Your task to perform on an android device: Add "logitech g502" to the cart on newegg Image 0: 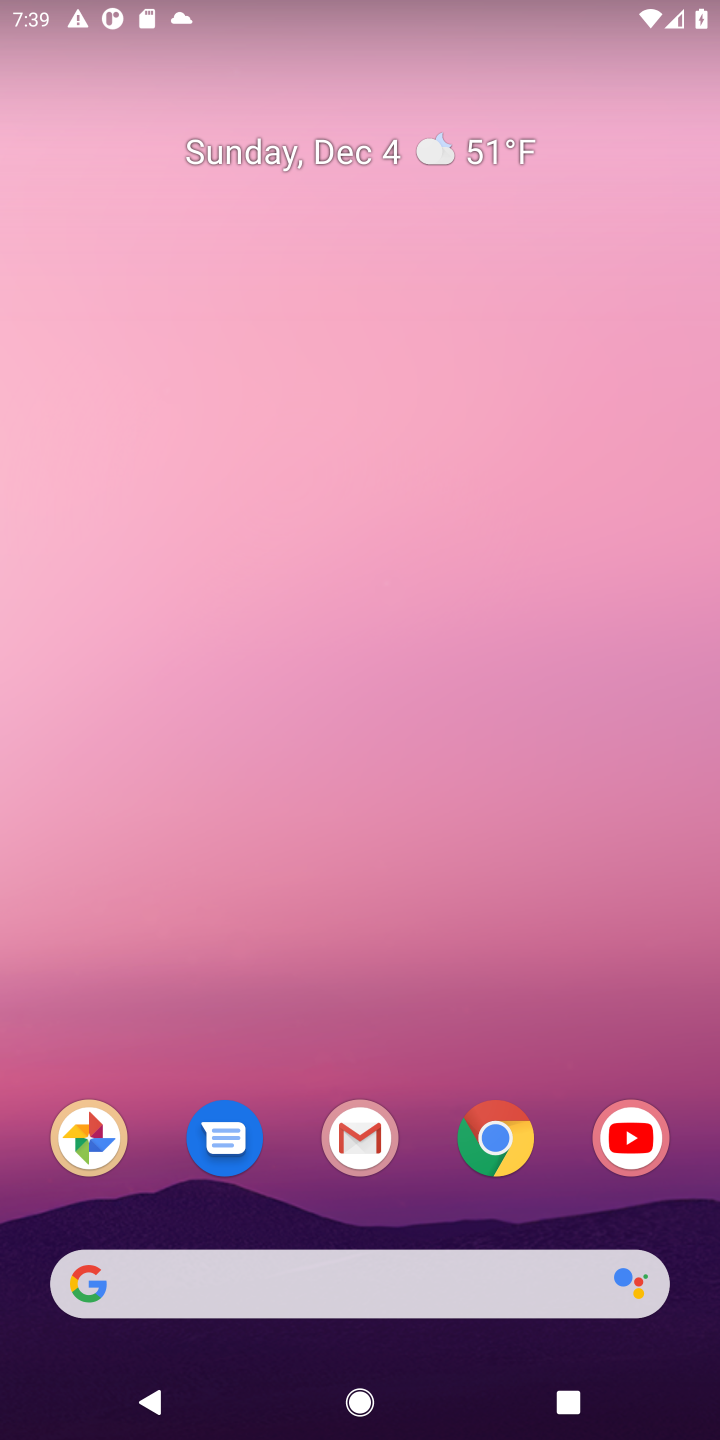
Step 0: click (487, 1139)
Your task to perform on an android device: Add "logitech g502" to the cart on newegg Image 1: 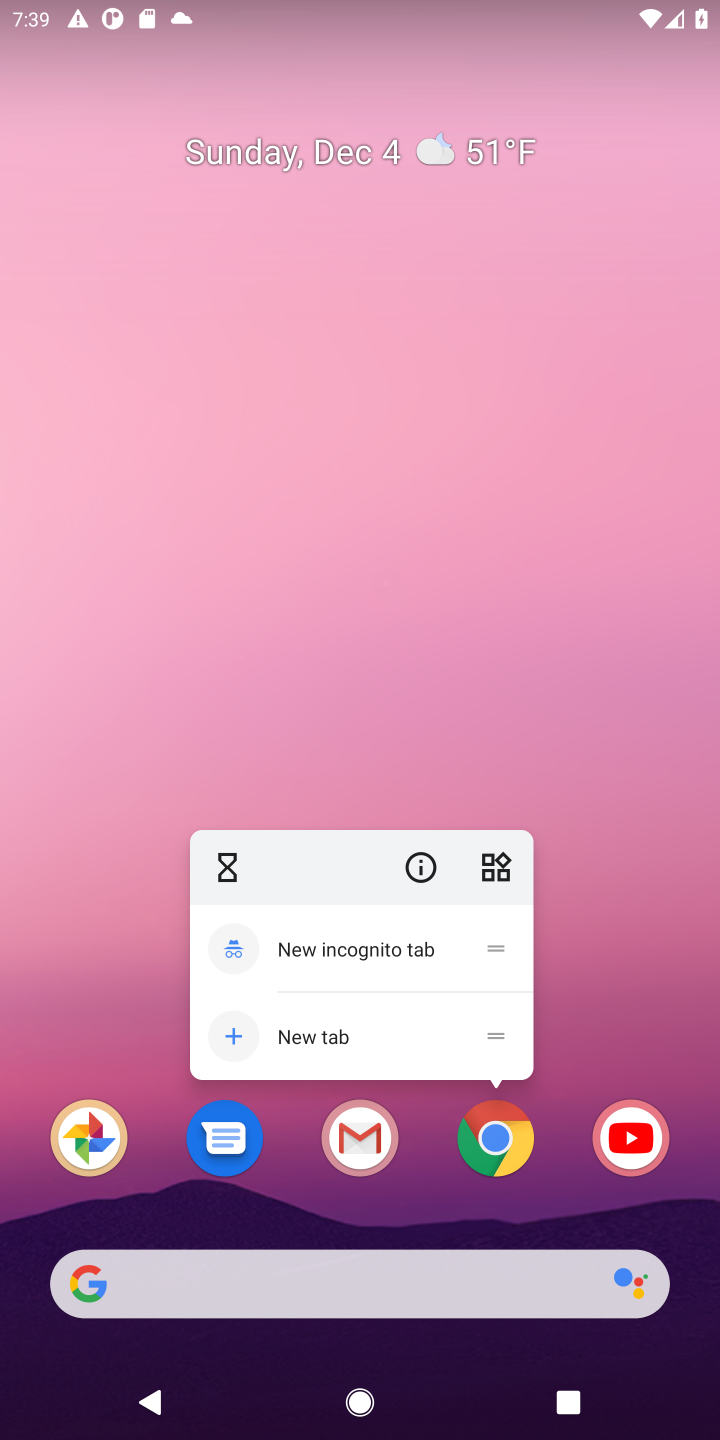
Step 1: click (487, 1139)
Your task to perform on an android device: Add "logitech g502" to the cart on newegg Image 2: 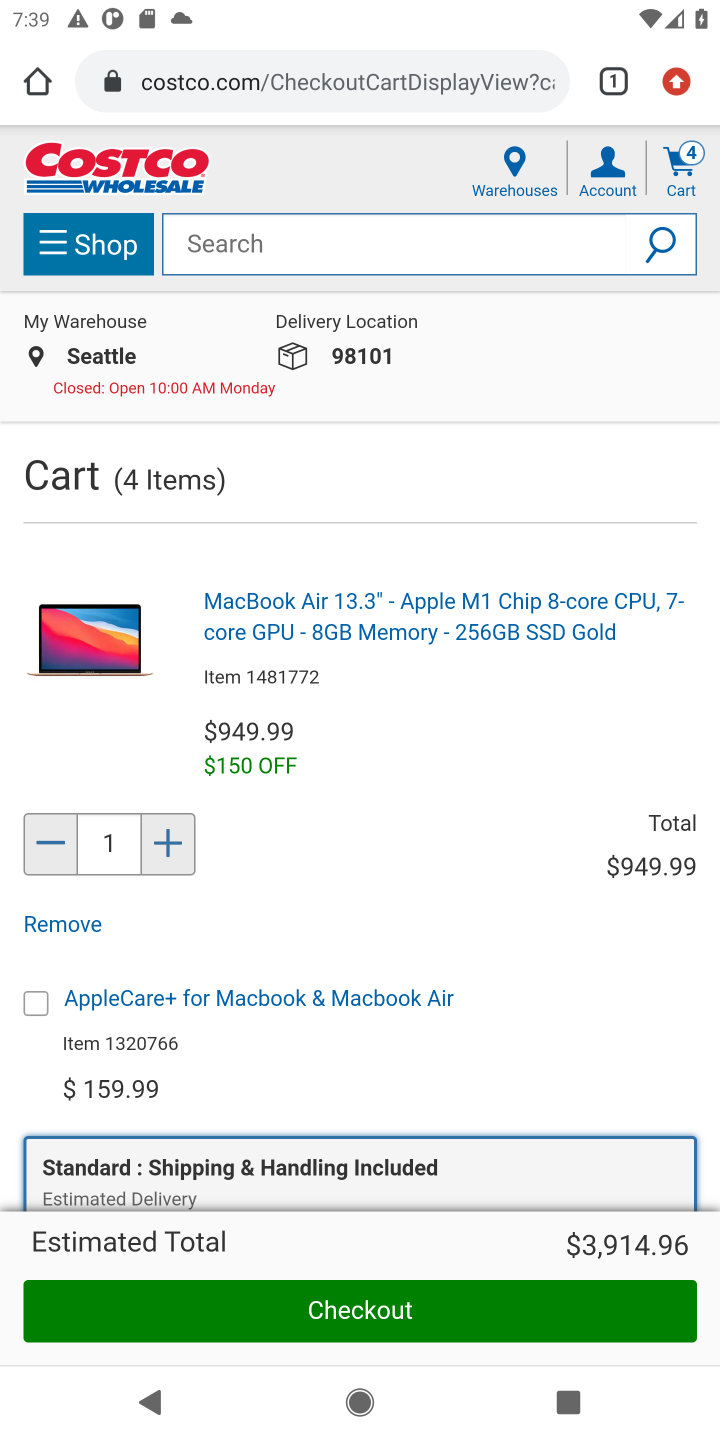
Step 2: click (475, 82)
Your task to perform on an android device: Add "logitech g502" to the cart on newegg Image 3: 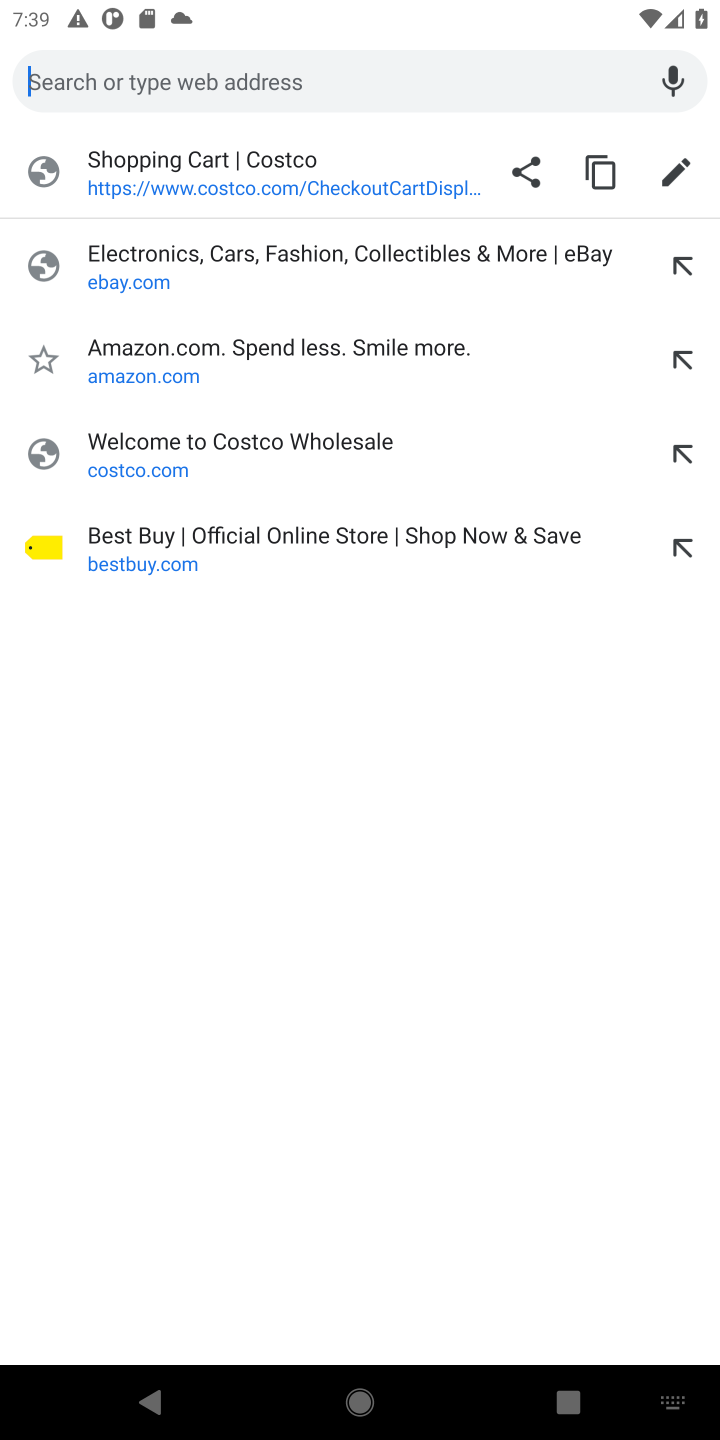
Step 3: type "newegg"
Your task to perform on an android device: Add "logitech g502" to the cart on newegg Image 4: 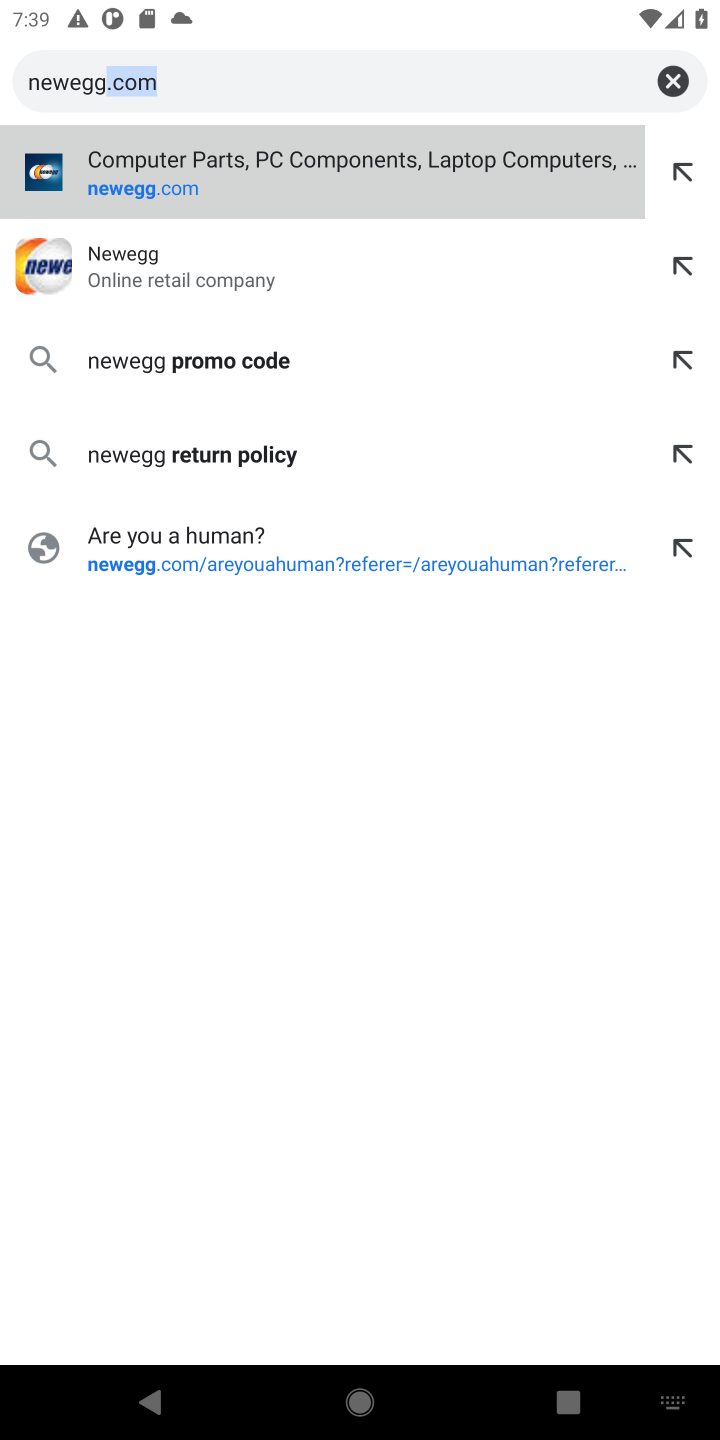
Step 4: press enter
Your task to perform on an android device: Add "logitech g502" to the cart on newegg Image 5: 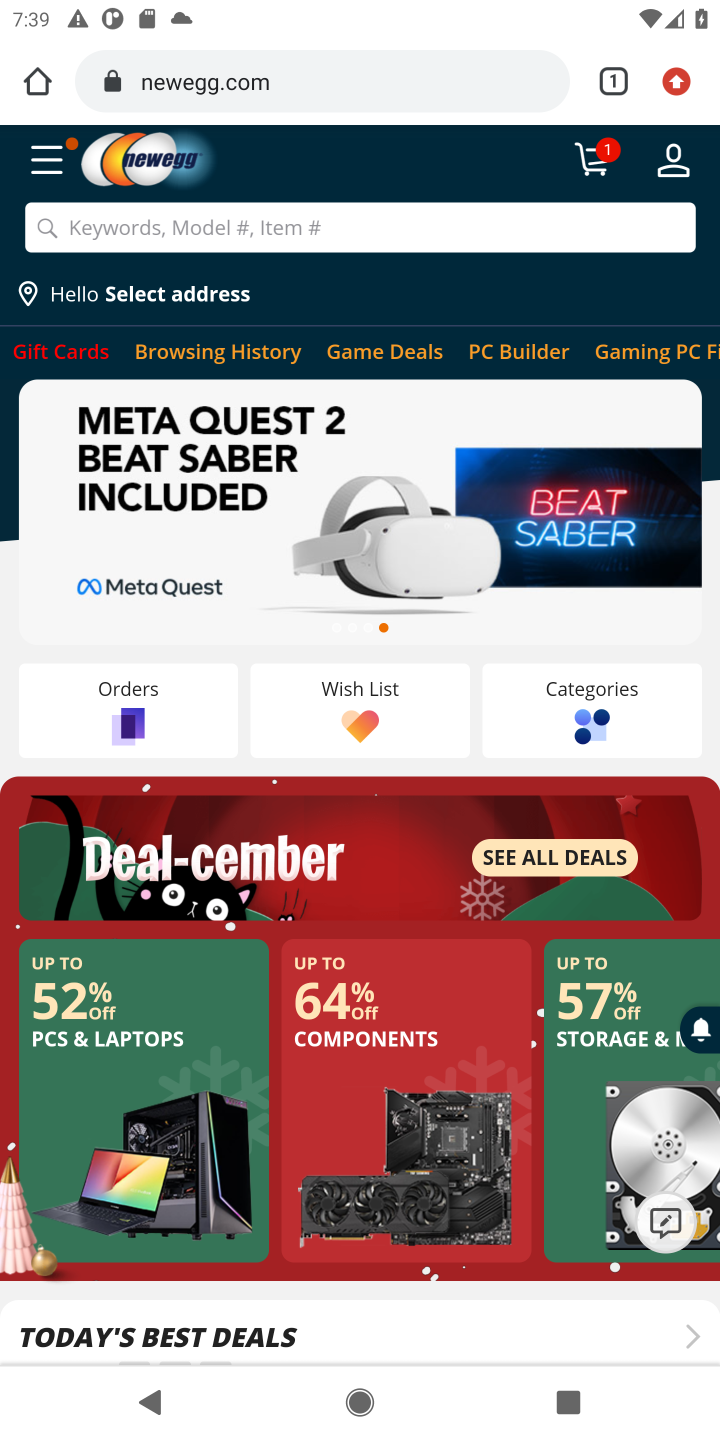
Step 5: click (350, 217)
Your task to perform on an android device: Add "logitech g502" to the cart on newegg Image 6: 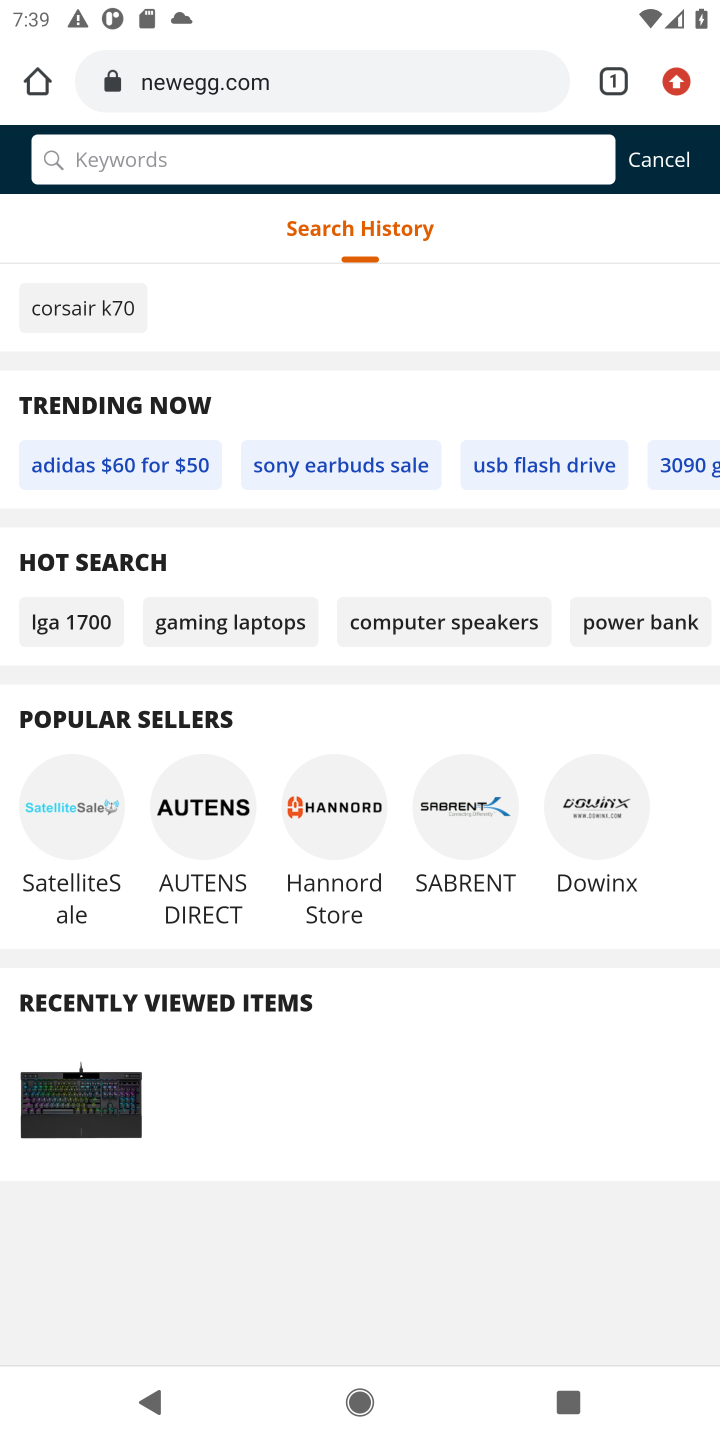
Step 6: type "logitech g502"
Your task to perform on an android device: Add "logitech g502" to the cart on newegg Image 7: 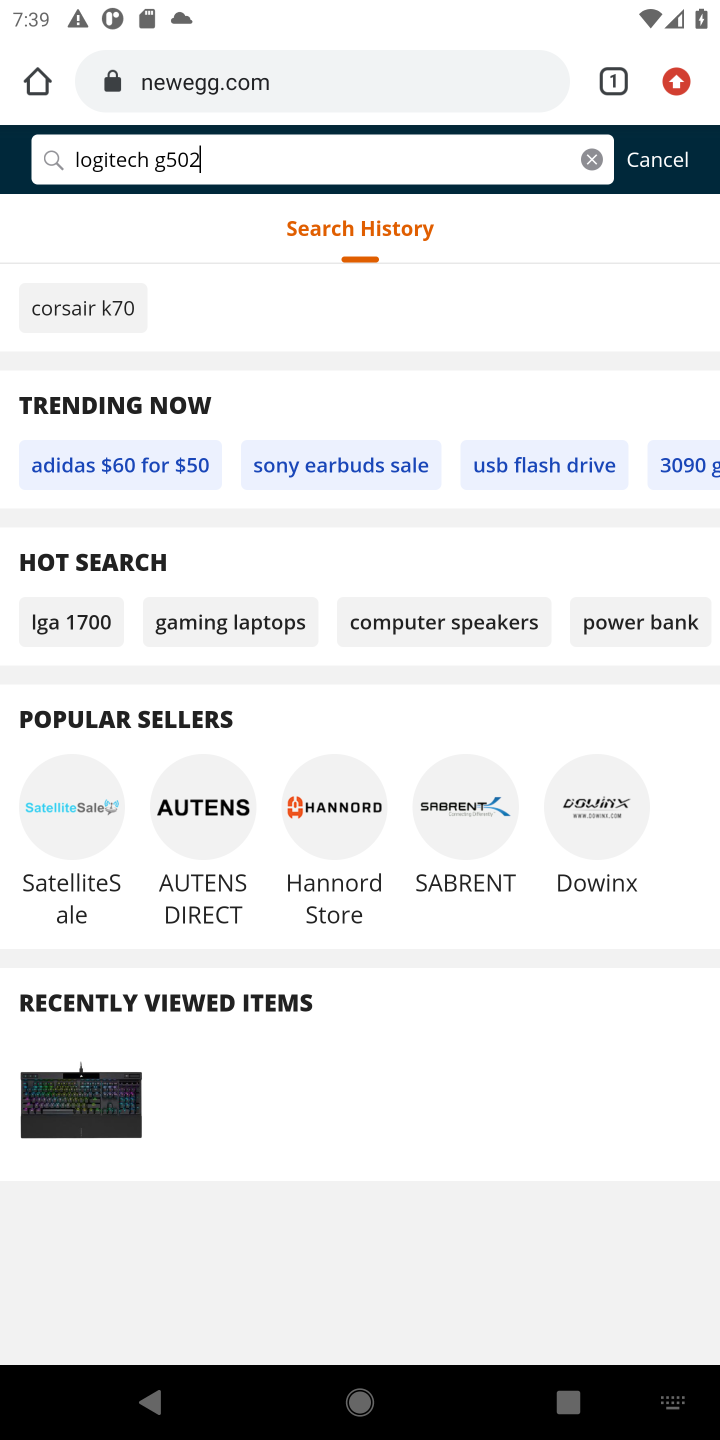
Step 7: press enter
Your task to perform on an android device: Add "logitech g502" to the cart on newegg Image 8: 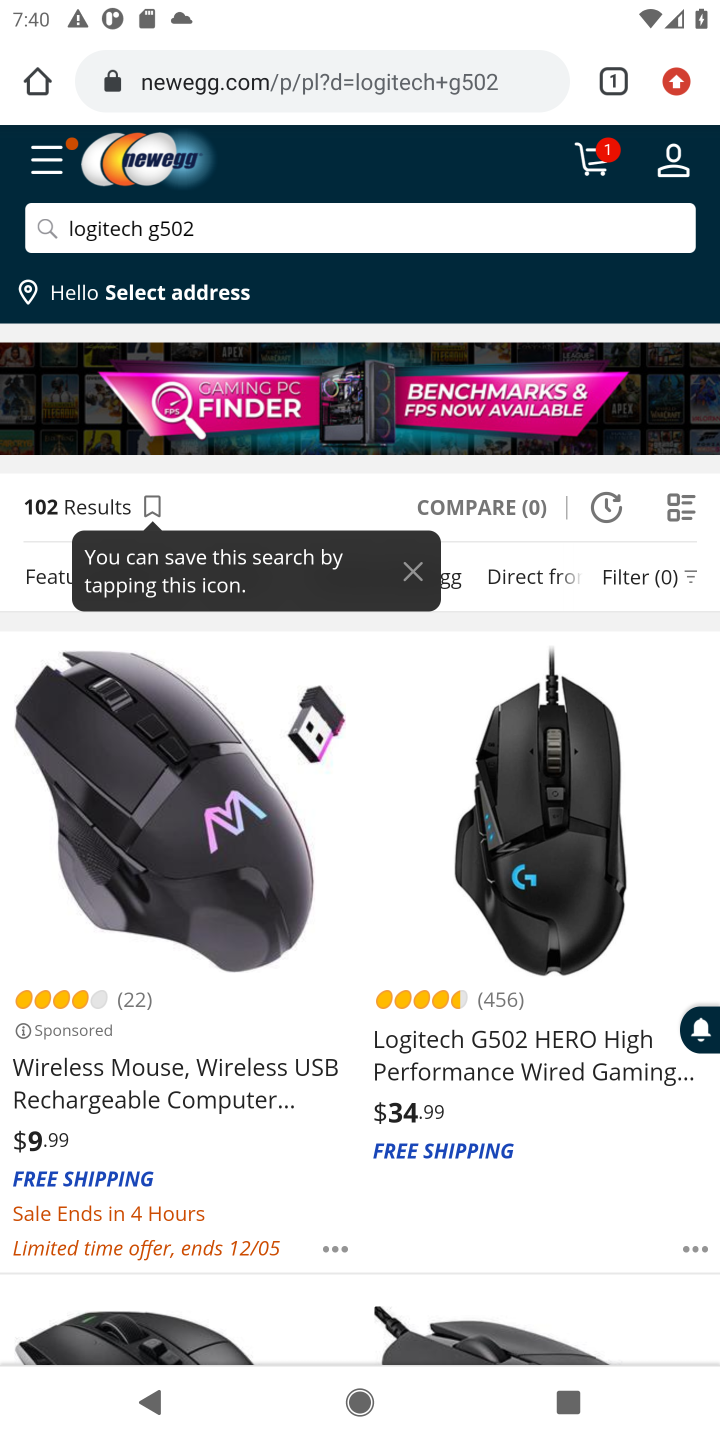
Step 8: click (575, 783)
Your task to perform on an android device: Add "logitech g502" to the cart on newegg Image 9: 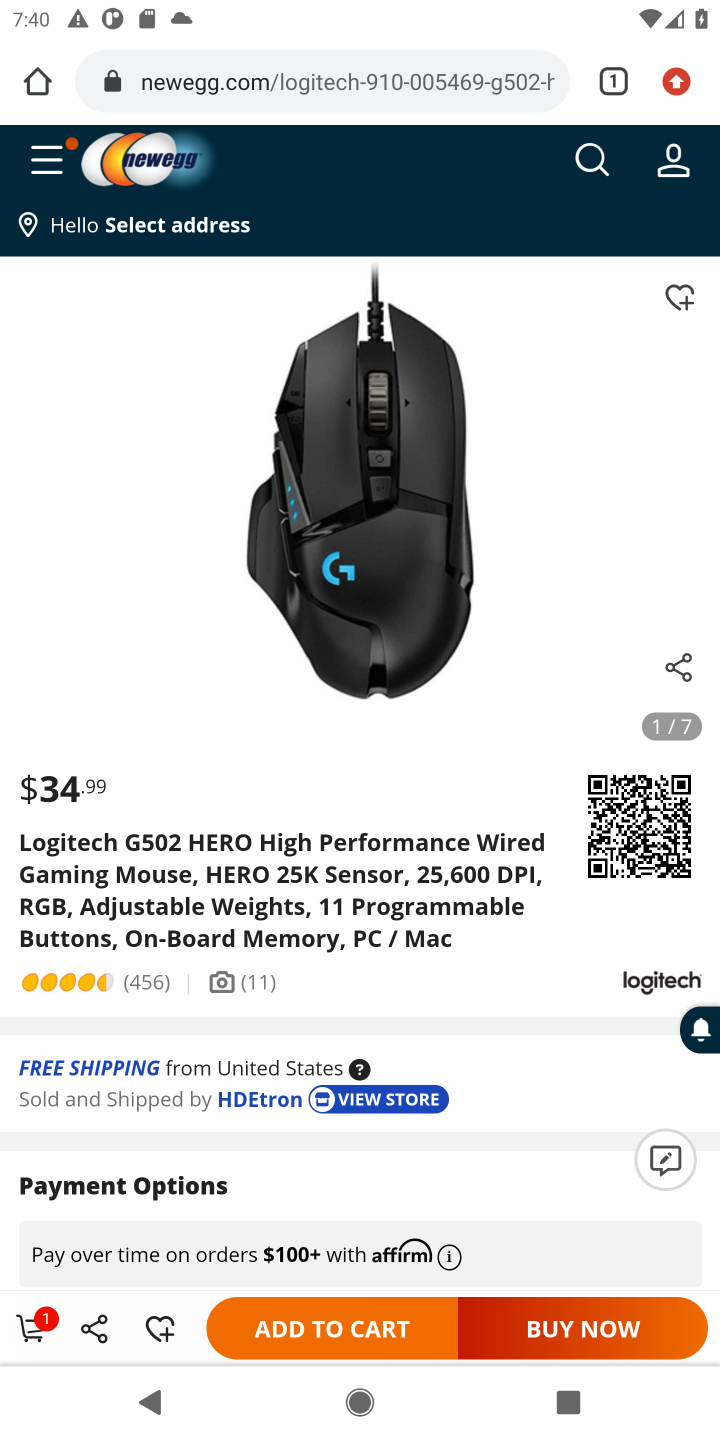
Step 9: click (356, 1339)
Your task to perform on an android device: Add "logitech g502" to the cart on newegg Image 10: 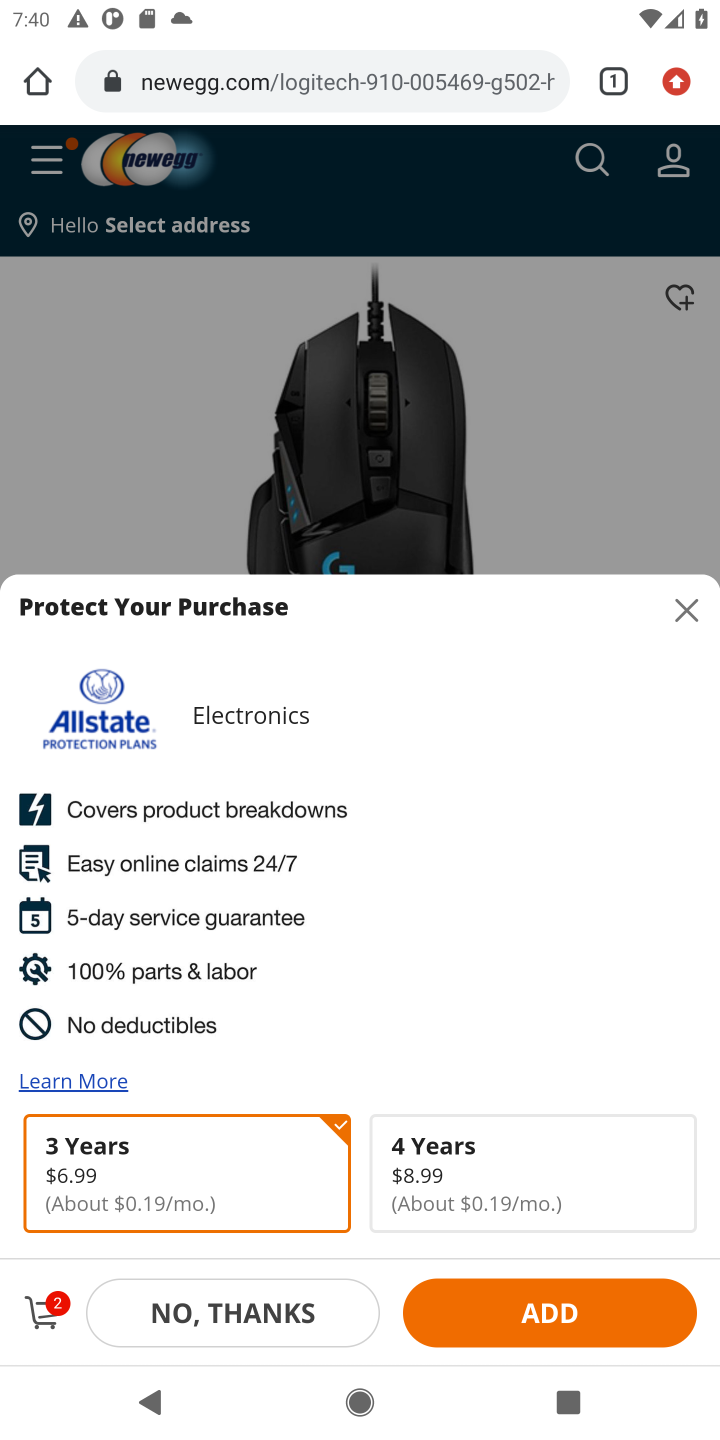
Step 10: task complete